Your task to perform on an android device: Open the calendar app, open the side menu, and click the "Day" option Image 0: 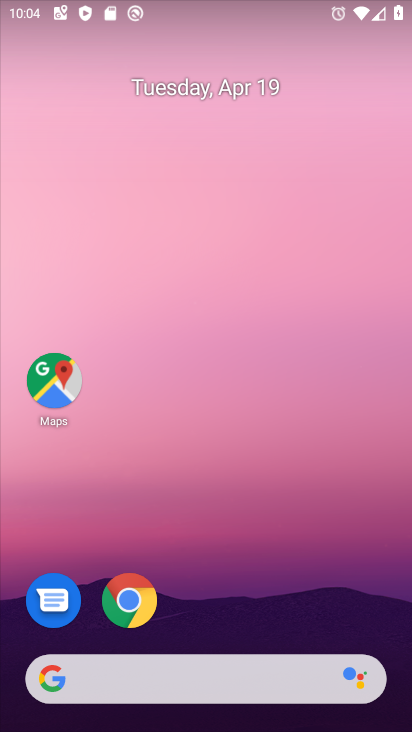
Step 0: drag from (319, 618) to (185, 227)
Your task to perform on an android device: Open the calendar app, open the side menu, and click the "Day" option Image 1: 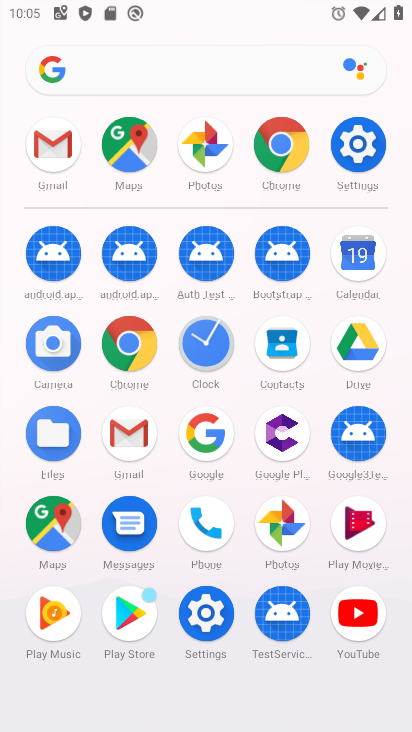
Step 1: click (365, 258)
Your task to perform on an android device: Open the calendar app, open the side menu, and click the "Day" option Image 2: 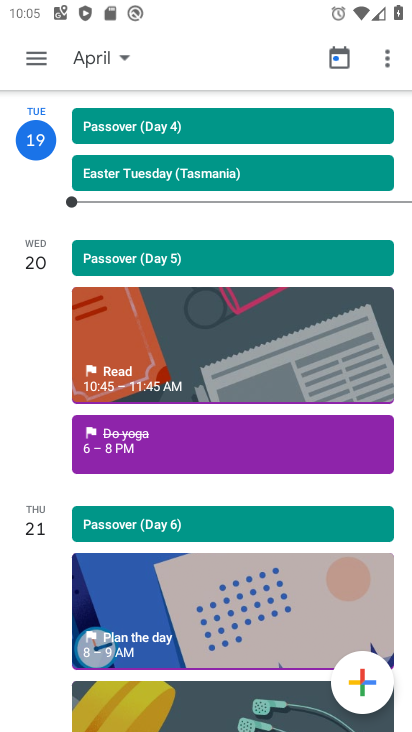
Step 2: click (40, 53)
Your task to perform on an android device: Open the calendar app, open the side menu, and click the "Day" option Image 3: 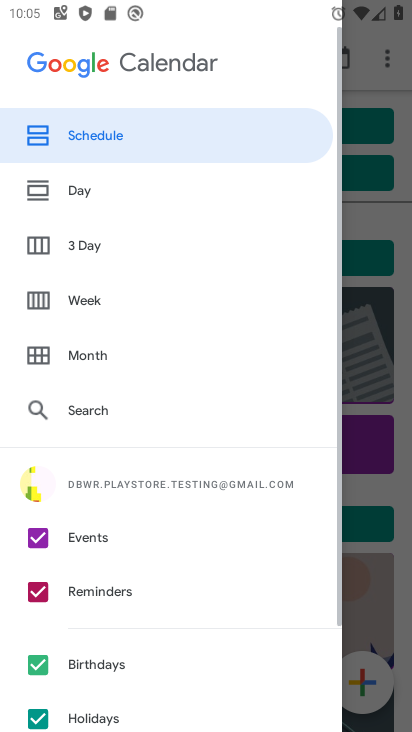
Step 3: click (108, 202)
Your task to perform on an android device: Open the calendar app, open the side menu, and click the "Day" option Image 4: 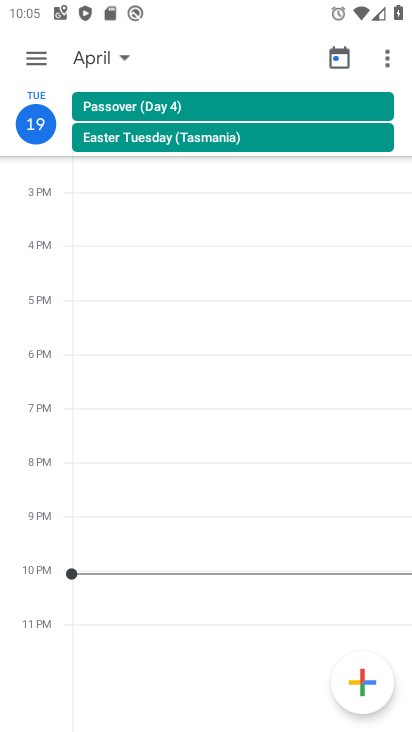
Step 4: task complete